Your task to perform on an android device: add a label to a message in the gmail app Image 0: 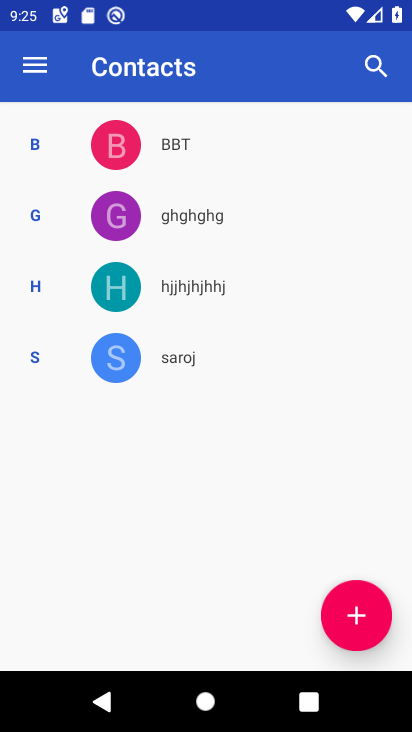
Step 0: press home button
Your task to perform on an android device: add a label to a message in the gmail app Image 1: 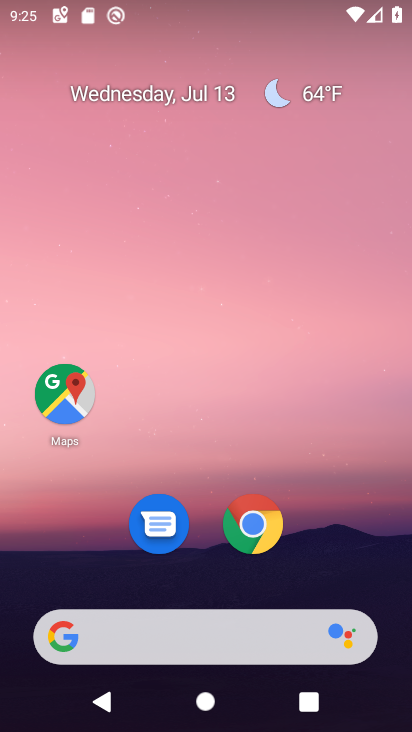
Step 1: drag from (197, 566) to (170, 39)
Your task to perform on an android device: add a label to a message in the gmail app Image 2: 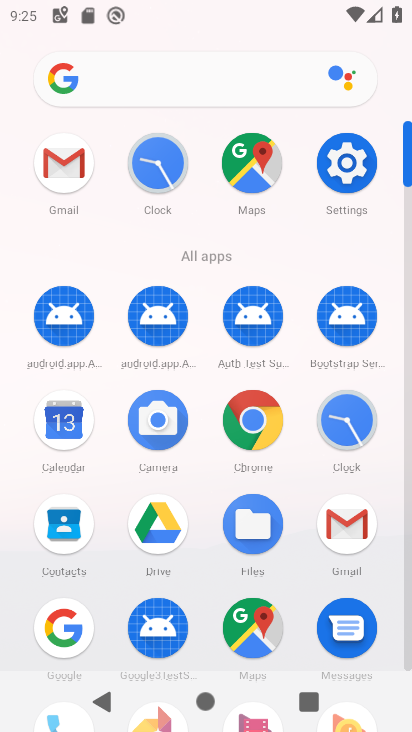
Step 2: click (352, 547)
Your task to perform on an android device: add a label to a message in the gmail app Image 3: 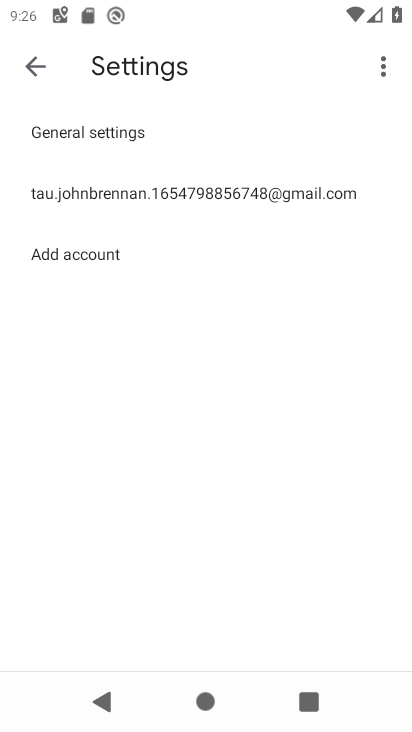
Step 3: click (35, 65)
Your task to perform on an android device: add a label to a message in the gmail app Image 4: 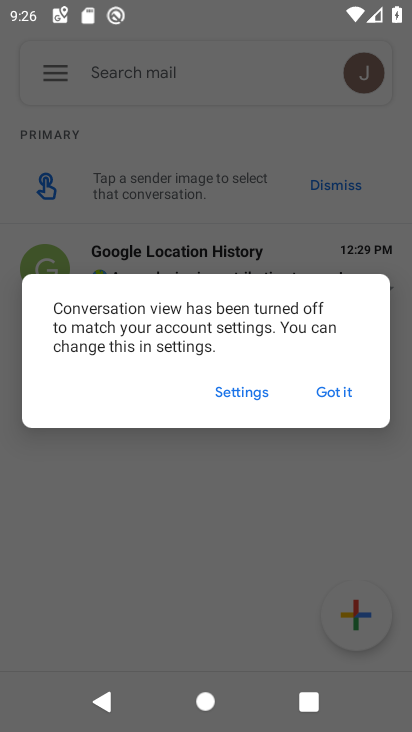
Step 4: click (330, 390)
Your task to perform on an android device: add a label to a message in the gmail app Image 5: 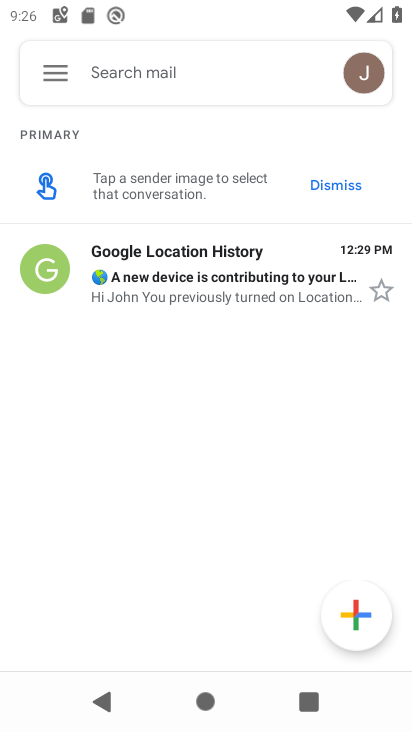
Step 5: click (250, 277)
Your task to perform on an android device: add a label to a message in the gmail app Image 6: 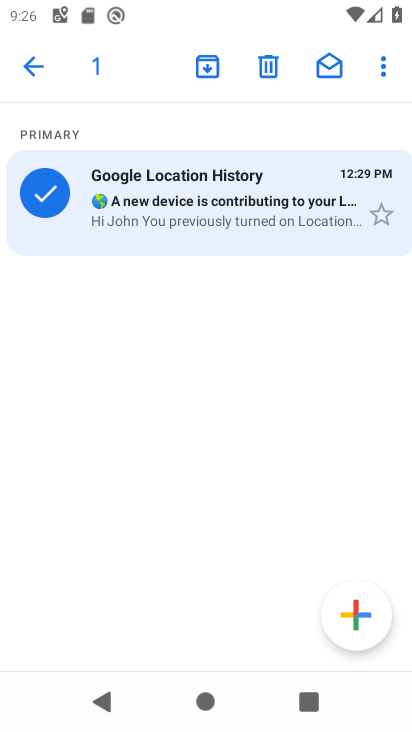
Step 6: click (373, 75)
Your task to perform on an android device: add a label to a message in the gmail app Image 7: 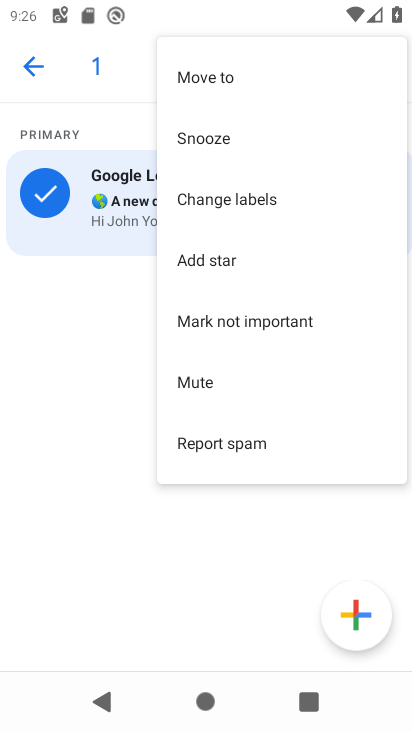
Step 7: click (230, 196)
Your task to perform on an android device: add a label to a message in the gmail app Image 8: 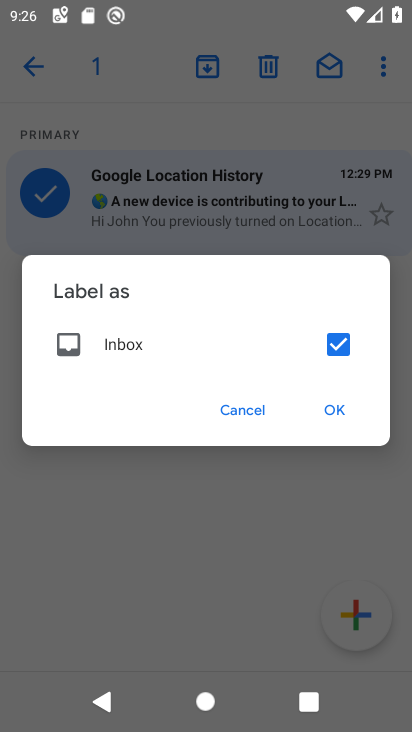
Step 8: click (343, 409)
Your task to perform on an android device: add a label to a message in the gmail app Image 9: 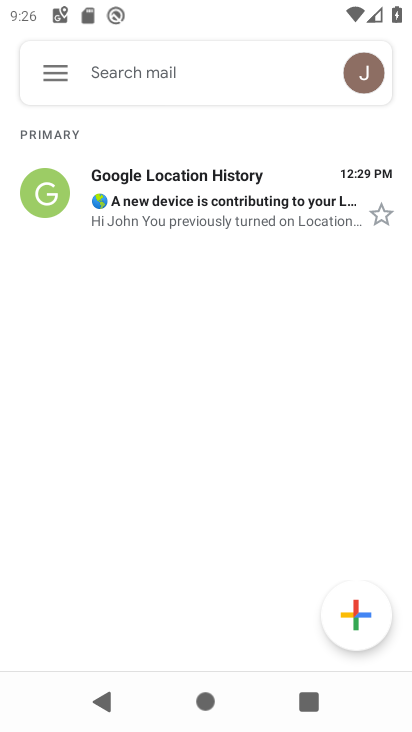
Step 9: click (283, 177)
Your task to perform on an android device: add a label to a message in the gmail app Image 10: 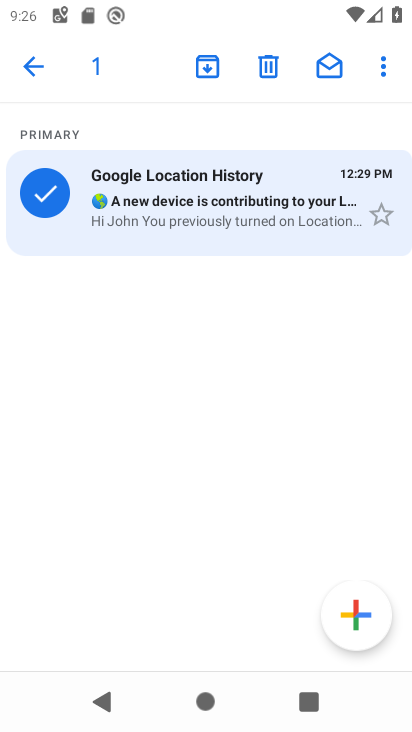
Step 10: click (375, 59)
Your task to perform on an android device: add a label to a message in the gmail app Image 11: 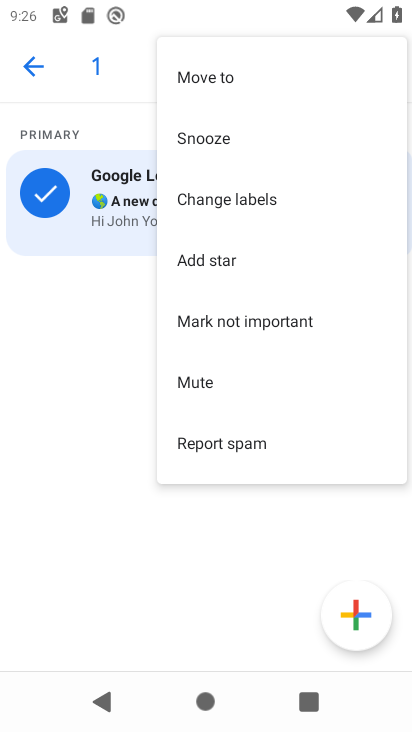
Step 11: click (234, 195)
Your task to perform on an android device: add a label to a message in the gmail app Image 12: 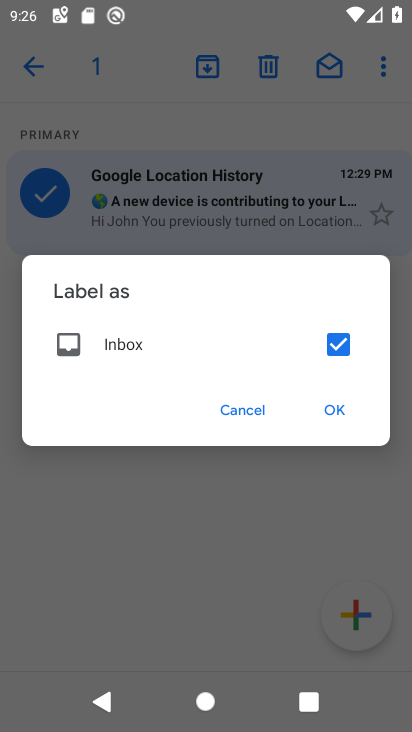
Step 12: click (337, 408)
Your task to perform on an android device: add a label to a message in the gmail app Image 13: 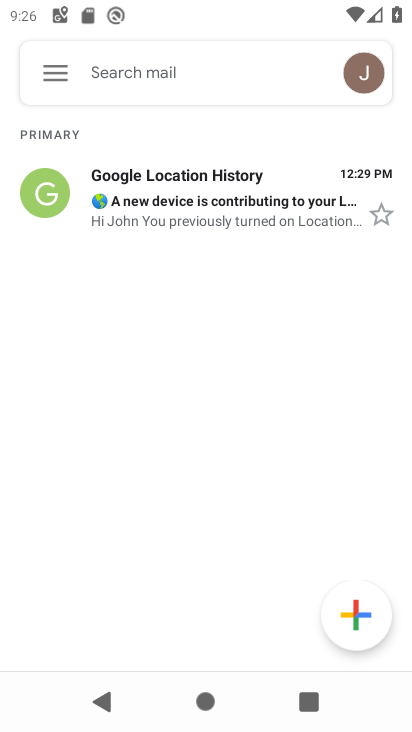
Step 13: task complete